Your task to perform on an android device: toggle notifications settings in the gmail app Image 0: 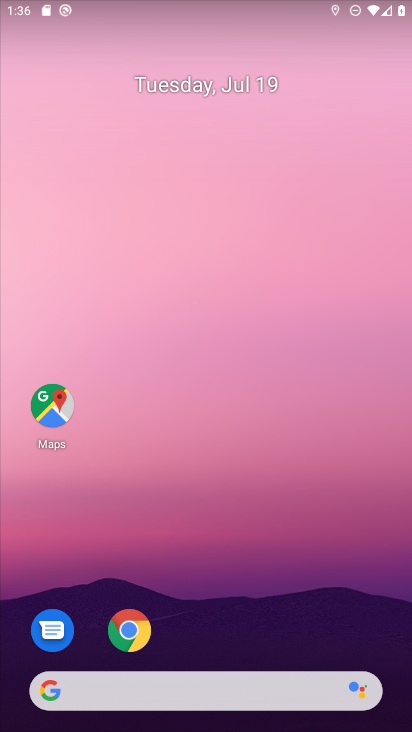
Step 0: press home button
Your task to perform on an android device: toggle notifications settings in the gmail app Image 1: 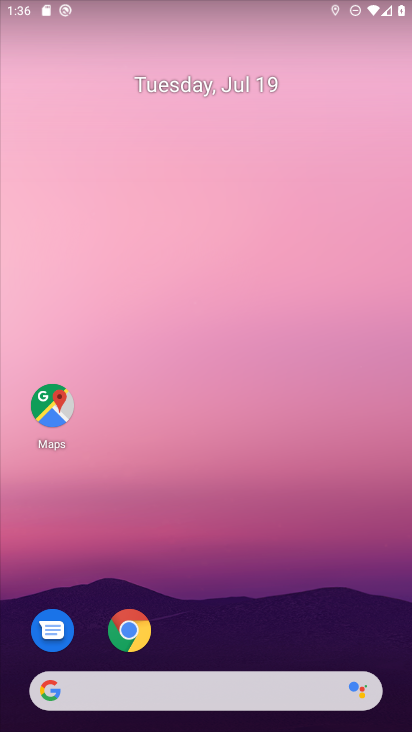
Step 1: drag from (173, 699) to (225, 48)
Your task to perform on an android device: toggle notifications settings in the gmail app Image 2: 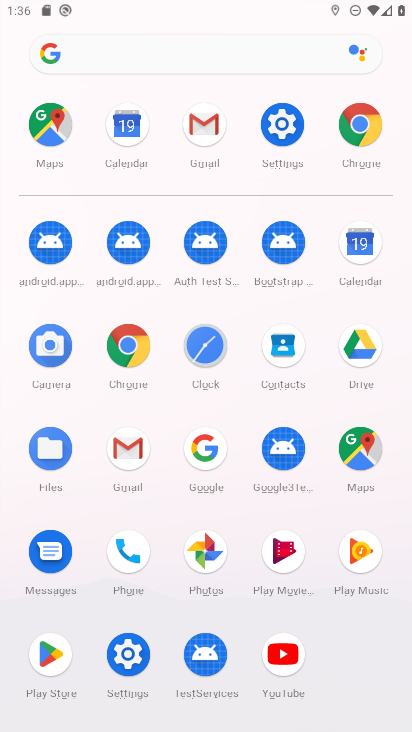
Step 2: click (204, 133)
Your task to perform on an android device: toggle notifications settings in the gmail app Image 3: 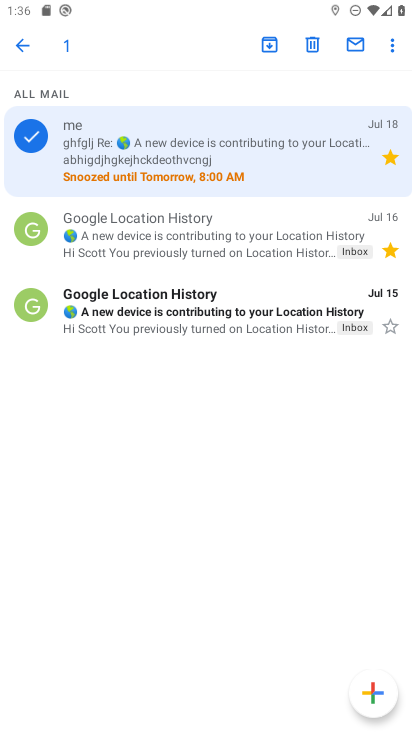
Step 3: click (18, 45)
Your task to perform on an android device: toggle notifications settings in the gmail app Image 4: 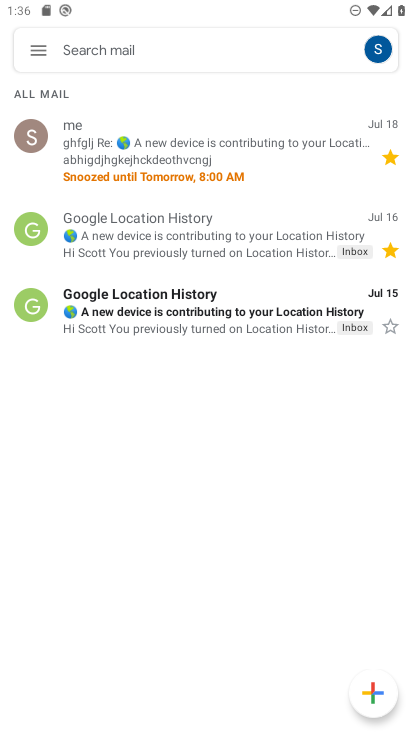
Step 4: click (44, 48)
Your task to perform on an android device: toggle notifications settings in the gmail app Image 5: 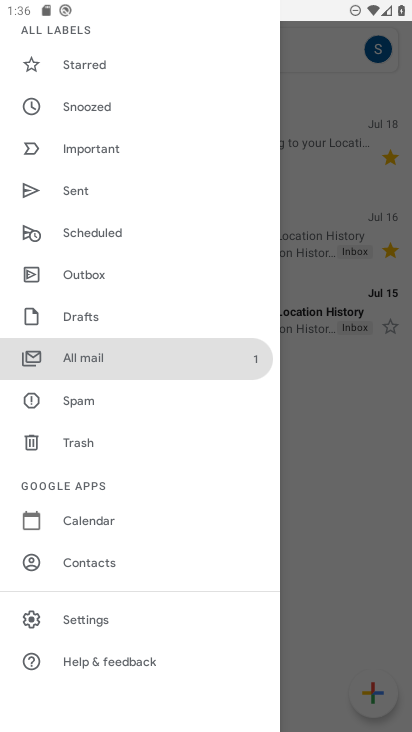
Step 5: click (81, 623)
Your task to perform on an android device: toggle notifications settings in the gmail app Image 6: 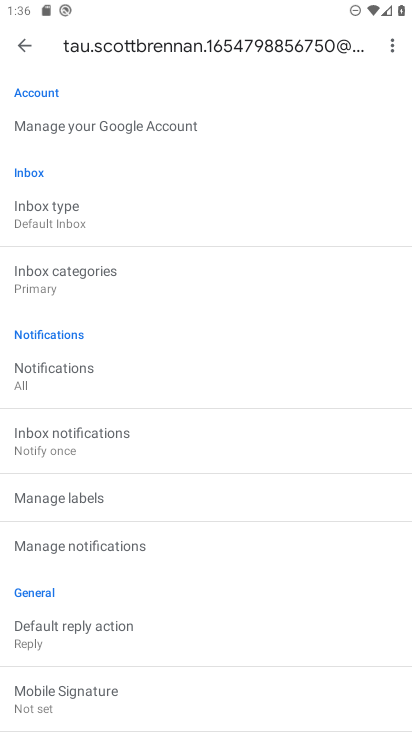
Step 6: click (75, 382)
Your task to perform on an android device: toggle notifications settings in the gmail app Image 7: 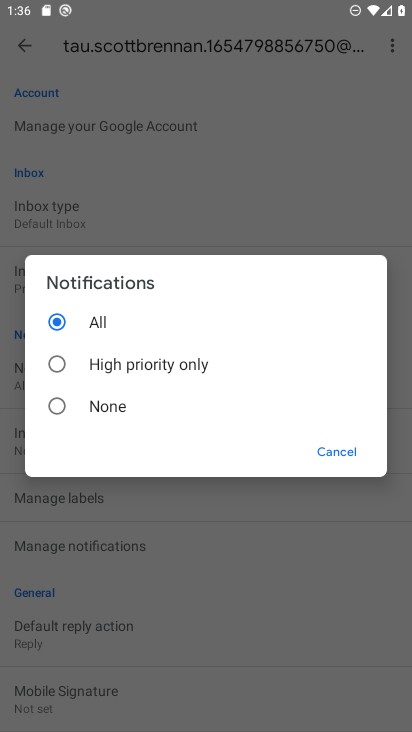
Step 7: click (57, 404)
Your task to perform on an android device: toggle notifications settings in the gmail app Image 8: 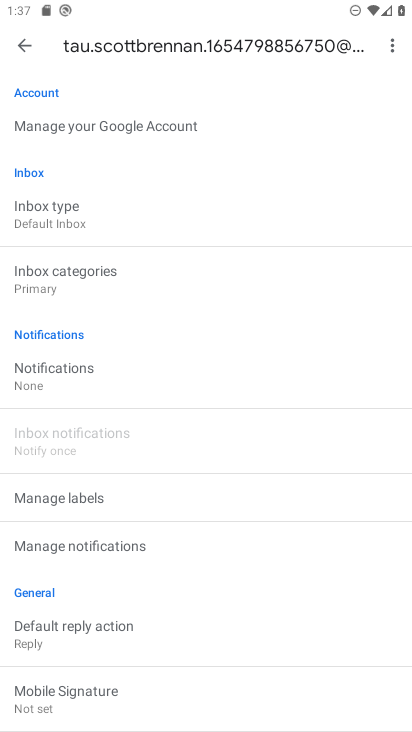
Step 8: task complete